Your task to perform on an android device: snooze an email in the gmail app Image 0: 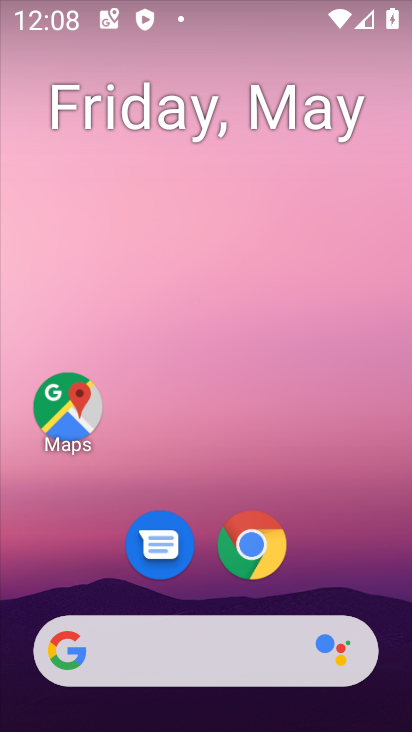
Step 0: drag from (320, 594) to (350, 202)
Your task to perform on an android device: snooze an email in the gmail app Image 1: 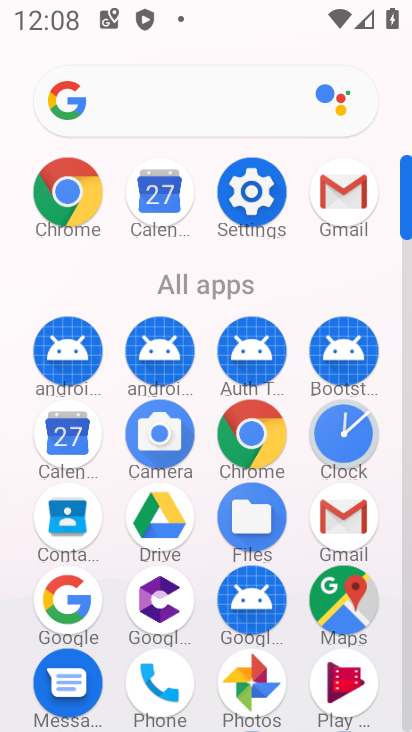
Step 1: click (345, 190)
Your task to perform on an android device: snooze an email in the gmail app Image 2: 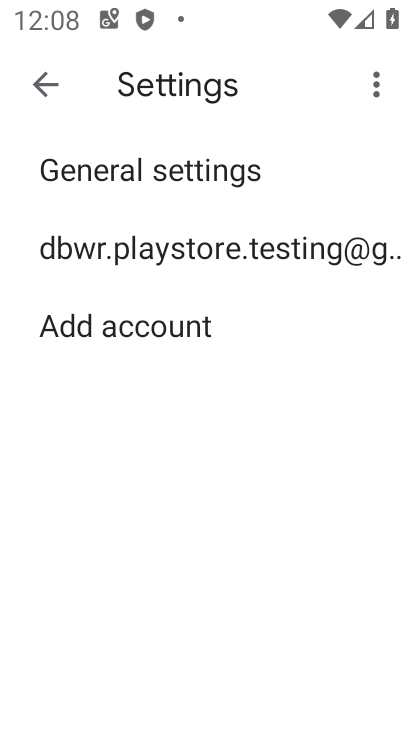
Step 2: click (377, 84)
Your task to perform on an android device: snooze an email in the gmail app Image 3: 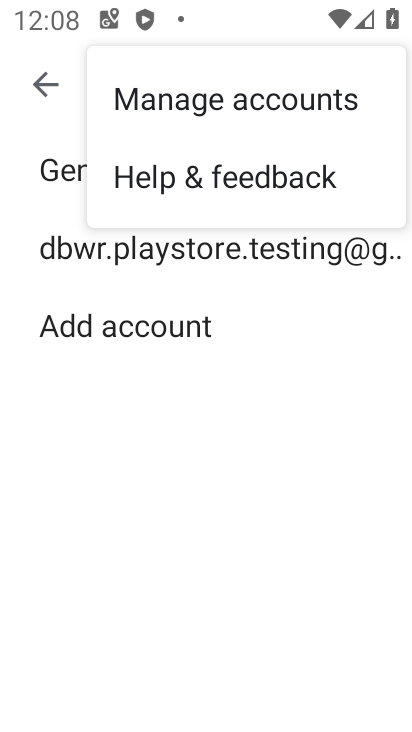
Step 3: click (270, 444)
Your task to perform on an android device: snooze an email in the gmail app Image 4: 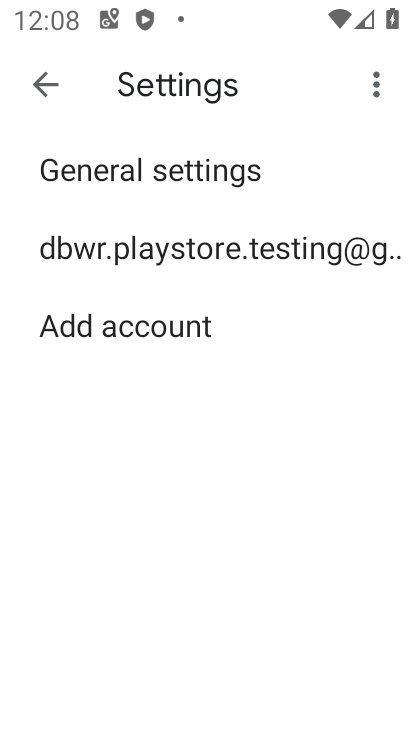
Step 4: click (47, 77)
Your task to perform on an android device: snooze an email in the gmail app Image 5: 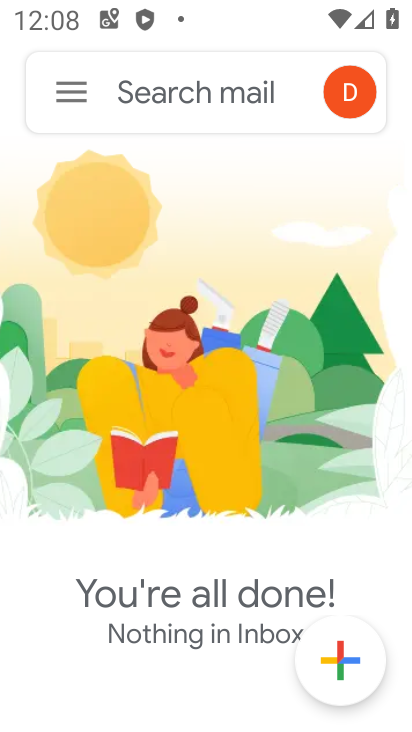
Step 5: click (65, 82)
Your task to perform on an android device: snooze an email in the gmail app Image 6: 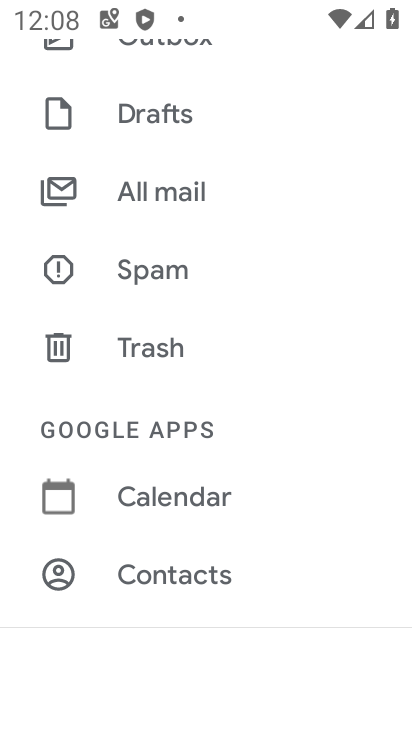
Step 6: drag from (164, 216) to (173, 618)
Your task to perform on an android device: snooze an email in the gmail app Image 7: 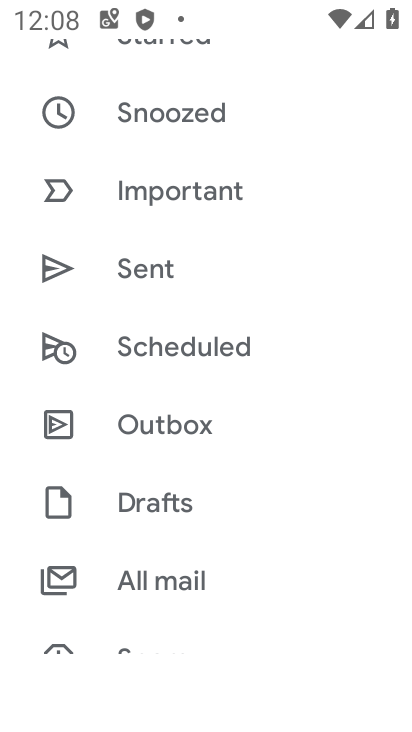
Step 7: click (146, 120)
Your task to perform on an android device: snooze an email in the gmail app Image 8: 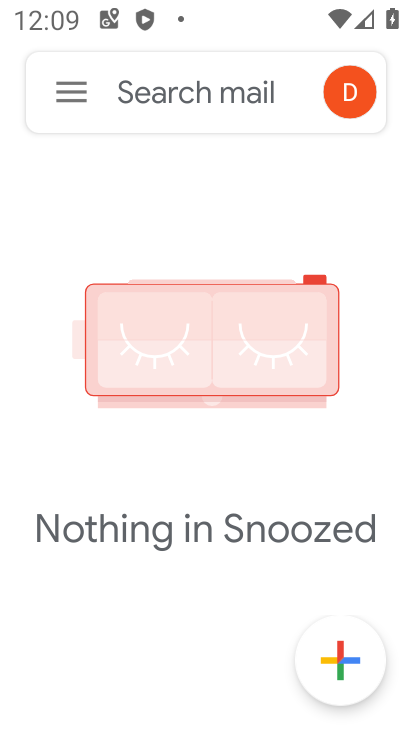
Step 8: task complete